Your task to perform on an android device: turn on airplane mode Image 0: 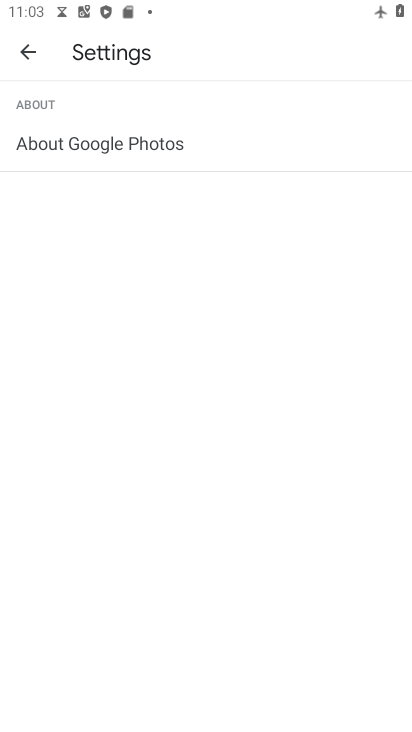
Step 0: press back button
Your task to perform on an android device: turn on airplane mode Image 1: 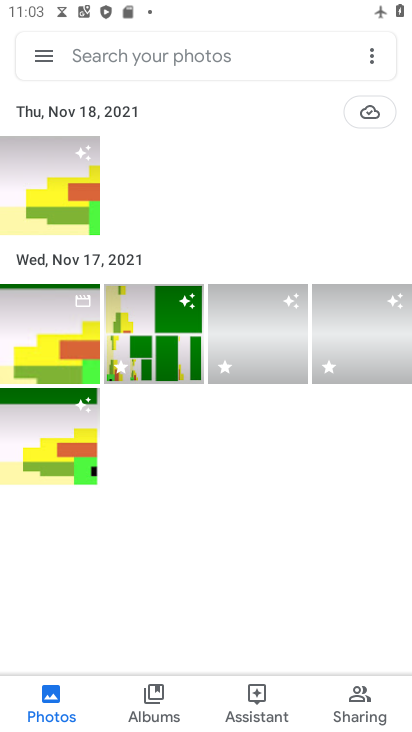
Step 1: press back button
Your task to perform on an android device: turn on airplane mode Image 2: 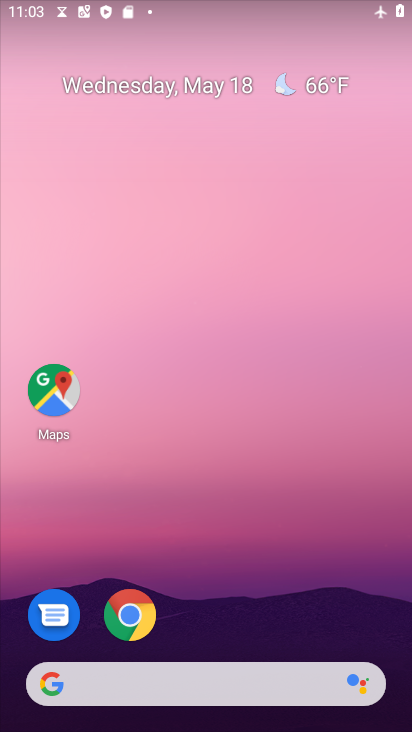
Step 2: drag from (186, 527) to (214, 34)
Your task to perform on an android device: turn on airplane mode Image 3: 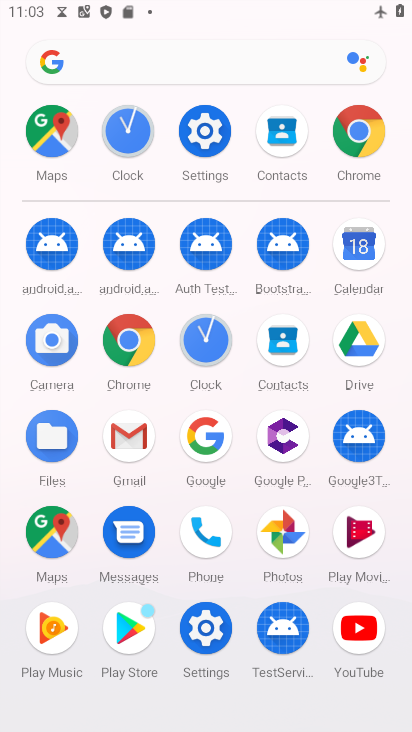
Step 3: click (206, 124)
Your task to perform on an android device: turn on airplane mode Image 4: 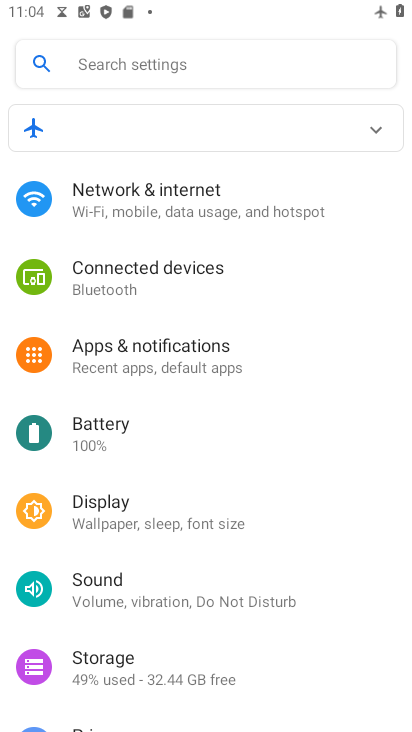
Step 4: click (220, 196)
Your task to perform on an android device: turn on airplane mode Image 5: 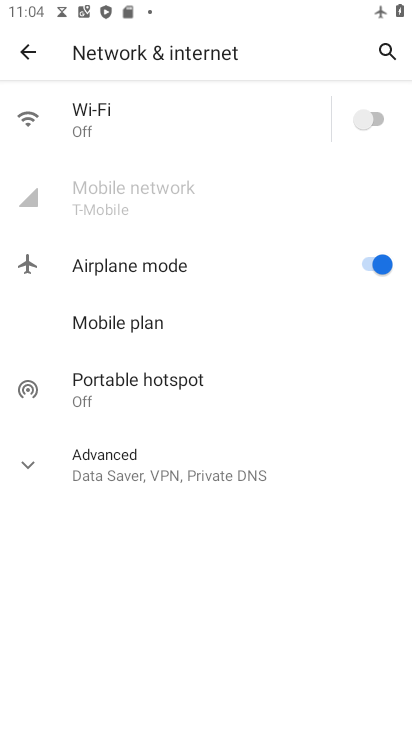
Step 5: task complete